Your task to perform on an android device: open app "Nova Launcher" Image 0: 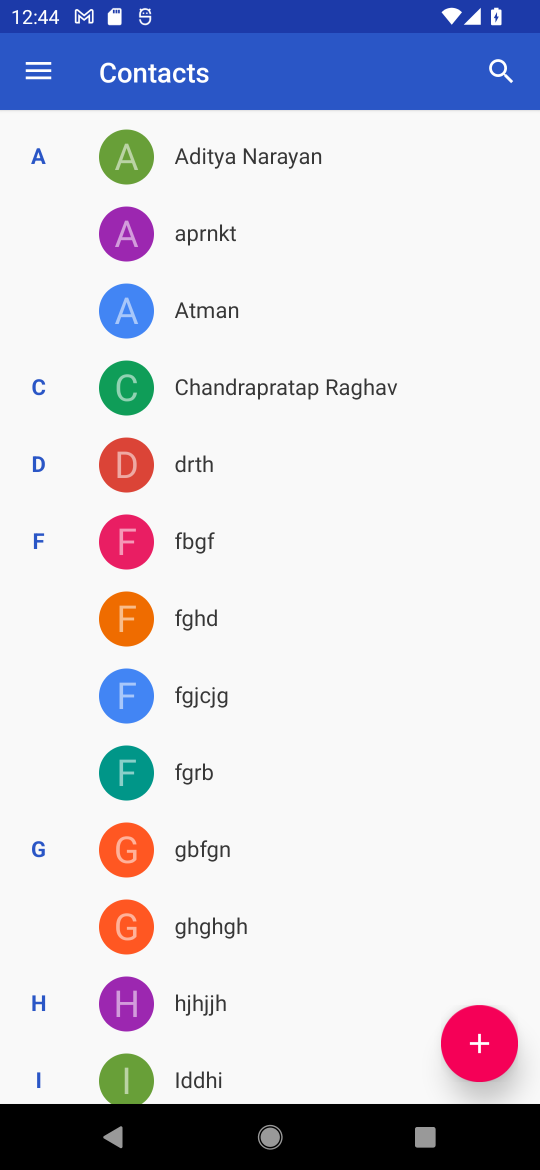
Step 0: press home button
Your task to perform on an android device: open app "Nova Launcher" Image 1: 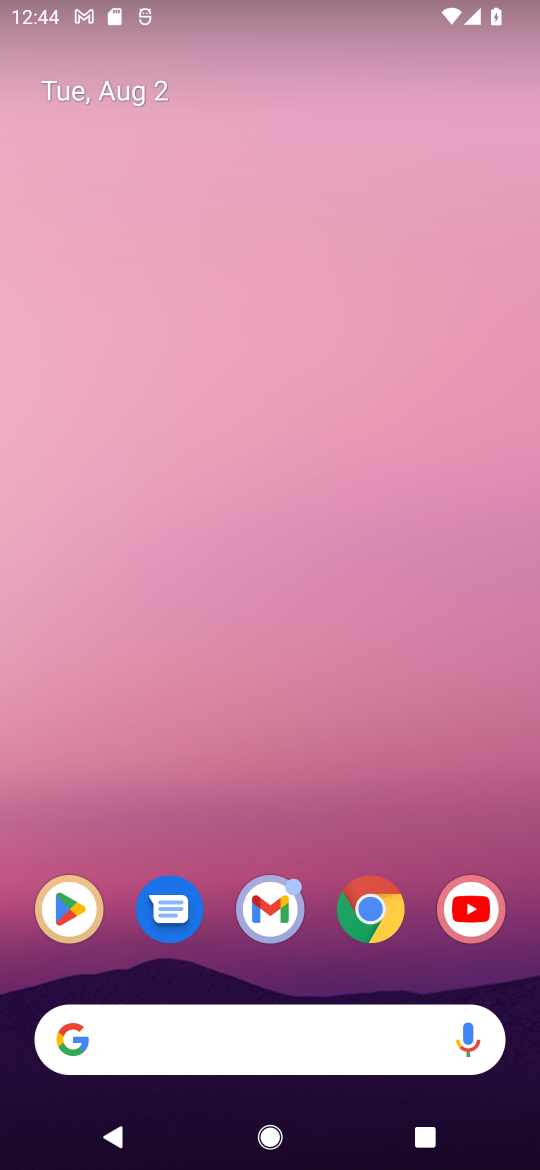
Step 1: click (48, 915)
Your task to perform on an android device: open app "Nova Launcher" Image 2: 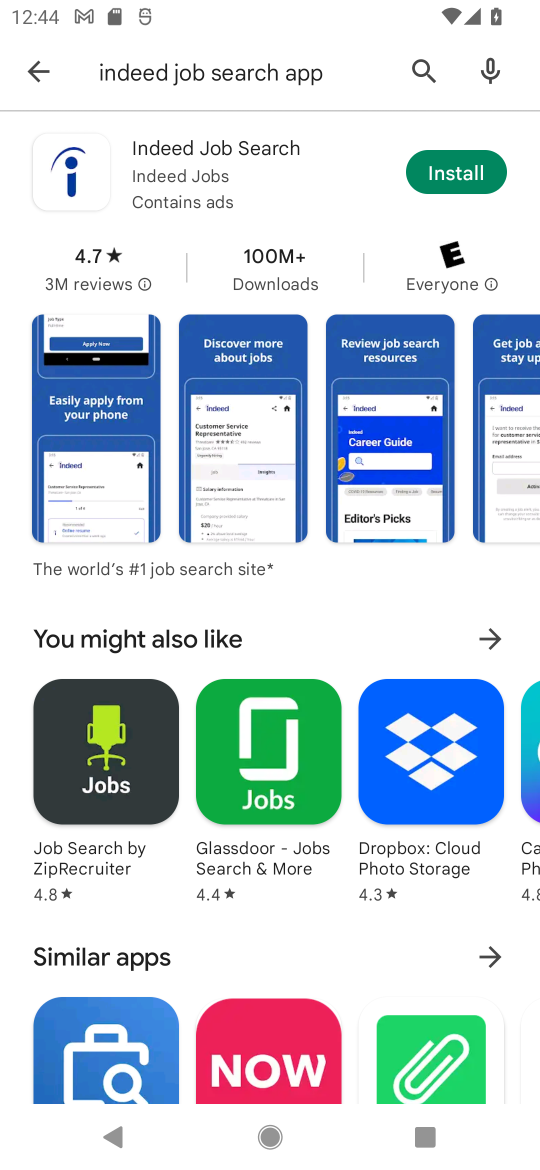
Step 2: click (423, 63)
Your task to perform on an android device: open app "Nova Launcher" Image 3: 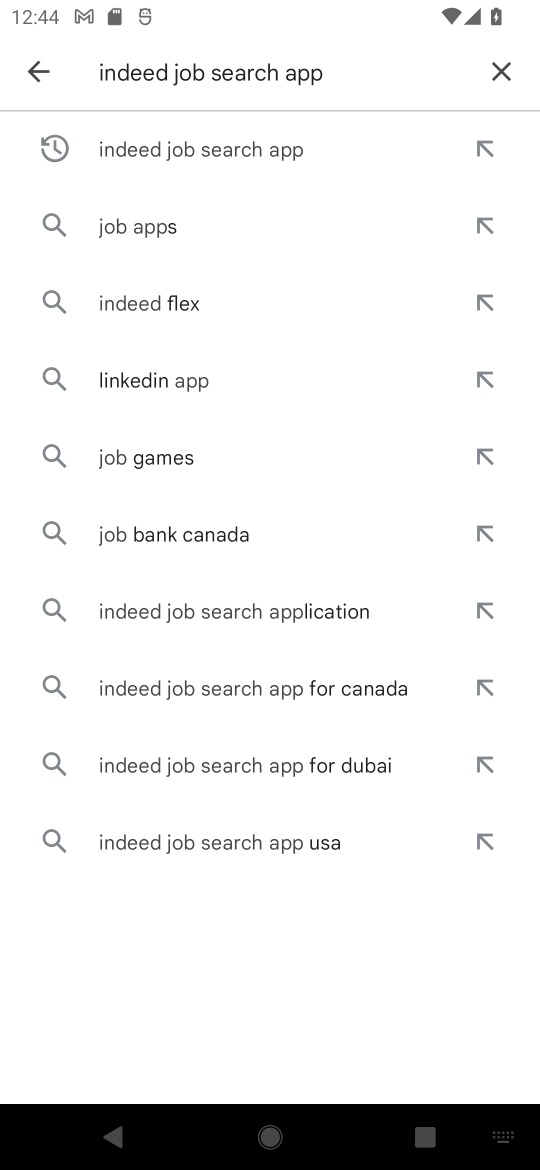
Step 3: click (498, 66)
Your task to perform on an android device: open app "Nova Launcher" Image 4: 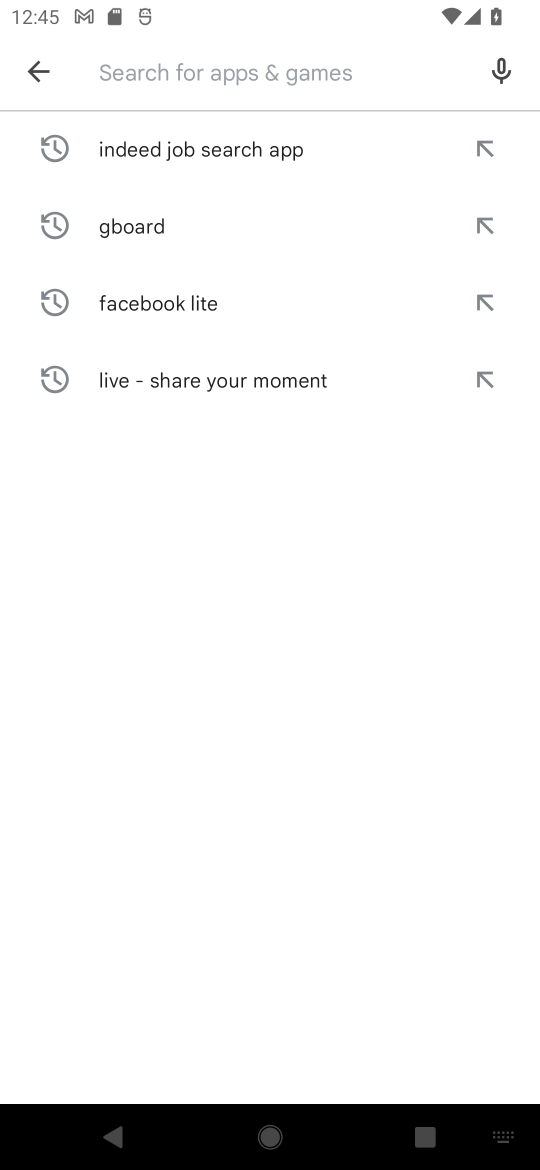
Step 4: type "Nova Launcher""
Your task to perform on an android device: open app "Nova Launcher" Image 5: 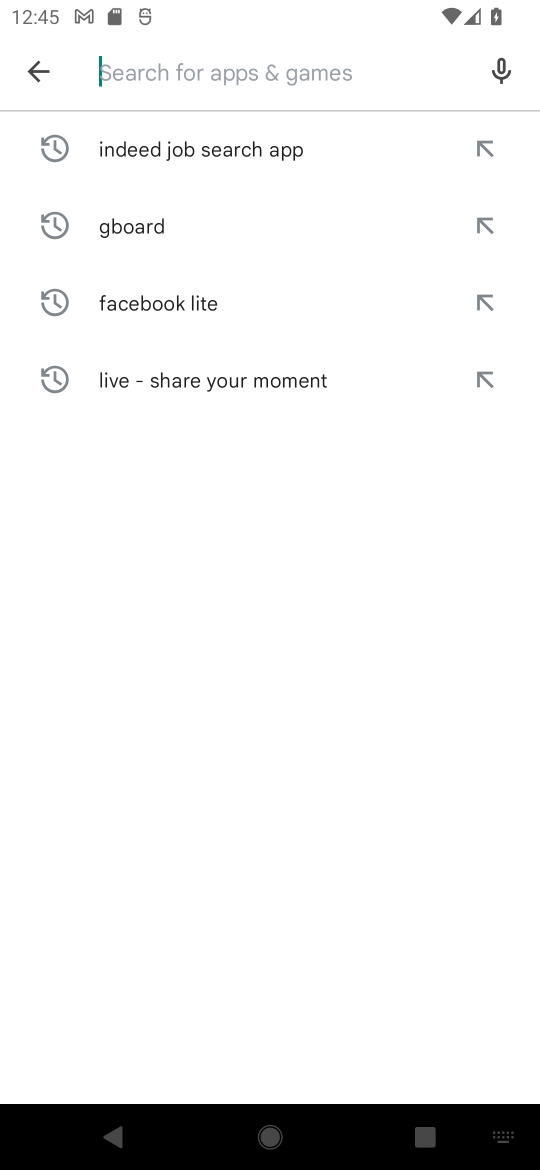
Step 5: type "Nova Launchar"
Your task to perform on an android device: open app "Nova Launcher" Image 6: 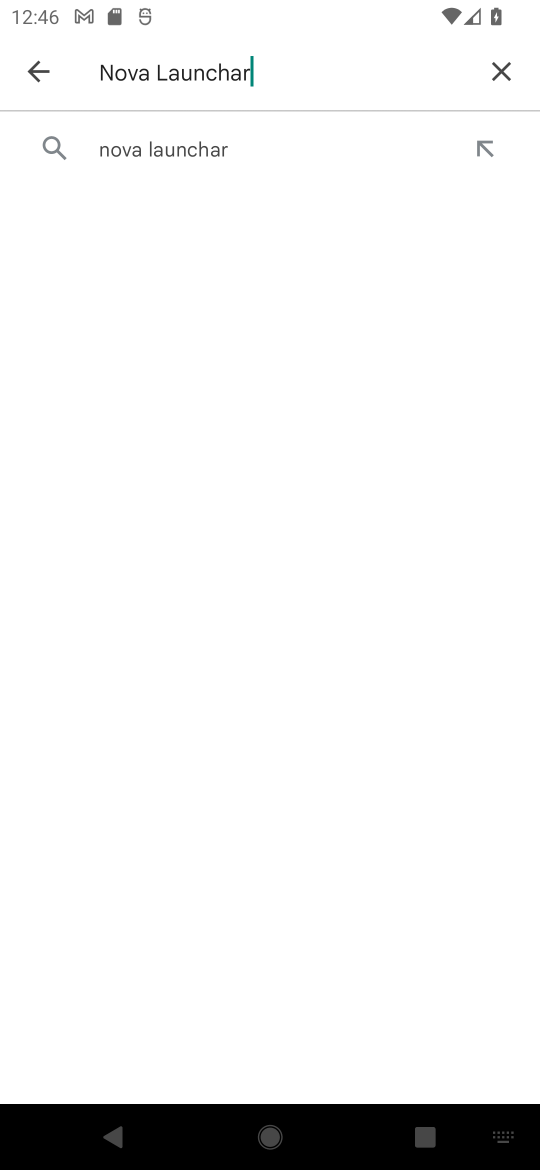
Step 6: click (195, 142)
Your task to perform on an android device: open app "Nova Launcher" Image 7: 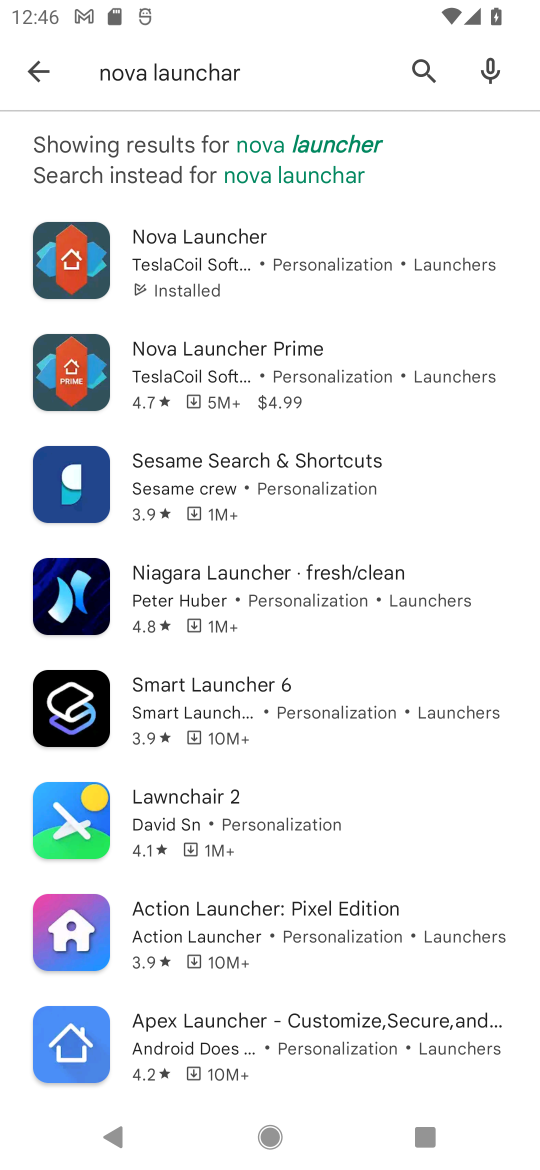
Step 7: click (197, 254)
Your task to perform on an android device: open app "Nova Launcher" Image 8: 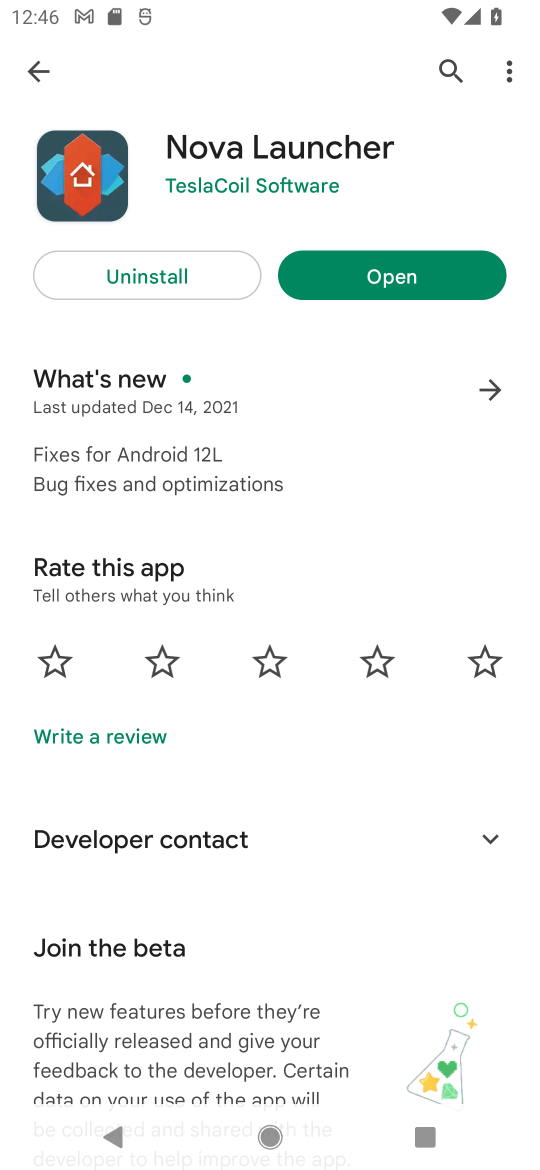
Step 8: click (318, 282)
Your task to perform on an android device: open app "Nova Launcher" Image 9: 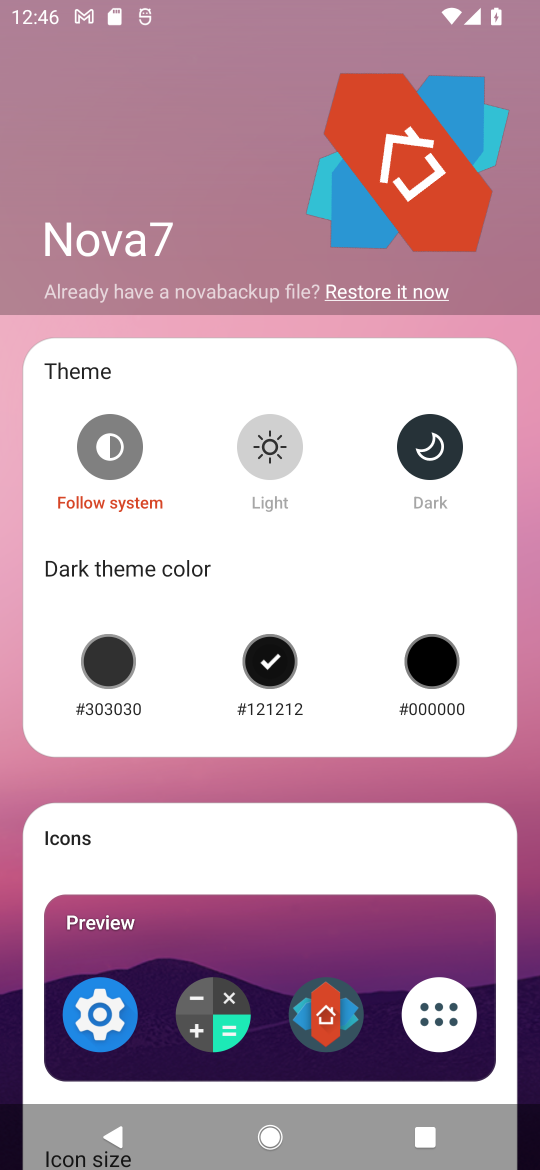
Step 9: task complete